Your task to perform on an android device: turn off notifications in google photos Image 0: 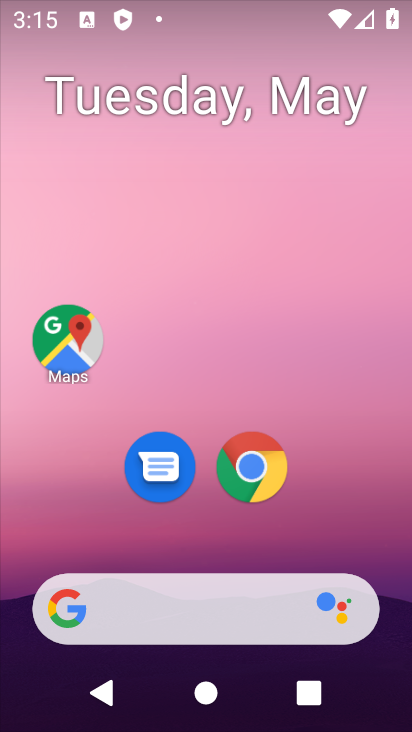
Step 0: task complete